Your task to perform on an android device: check google app version Image 0: 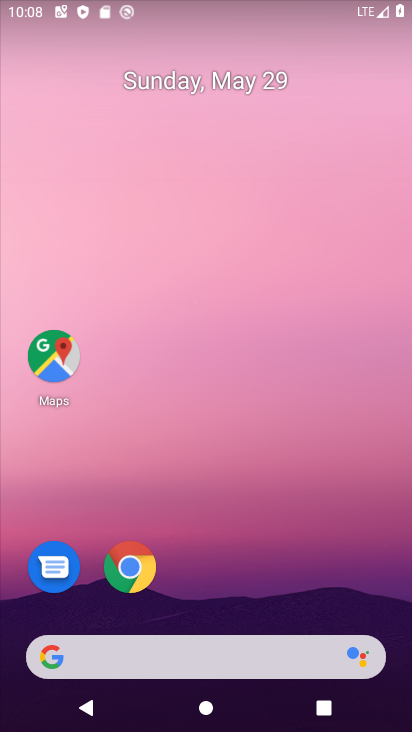
Step 0: click (134, 565)
Your task to perform on an android device: check google app version Image 1: 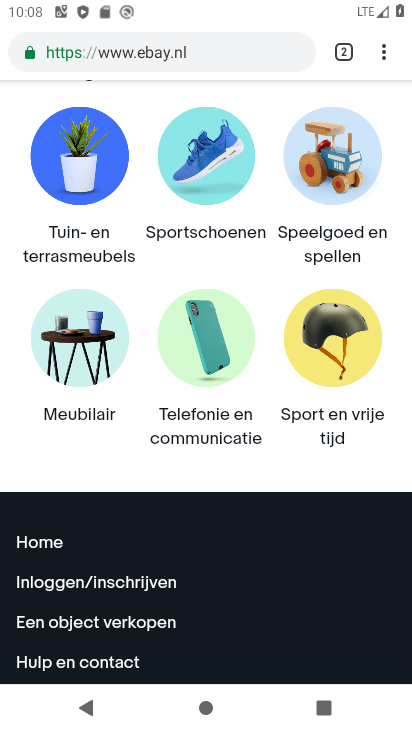
Step 1: click (385, 53)
Your task to perform on an android device: check google app version Image 2: 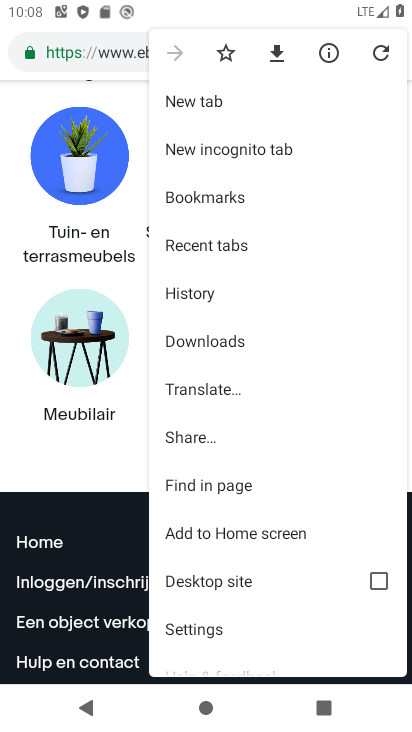
Step 2: click (198, 627)
Your task to perform on an android device: check google app version Image 3: 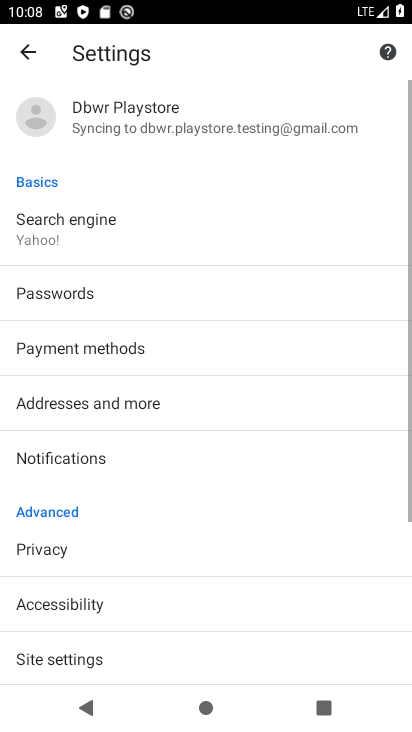
Step 3: drag from (236, 634) to (207, 114)
Your task to perform on an android device: check google app version Image 4: 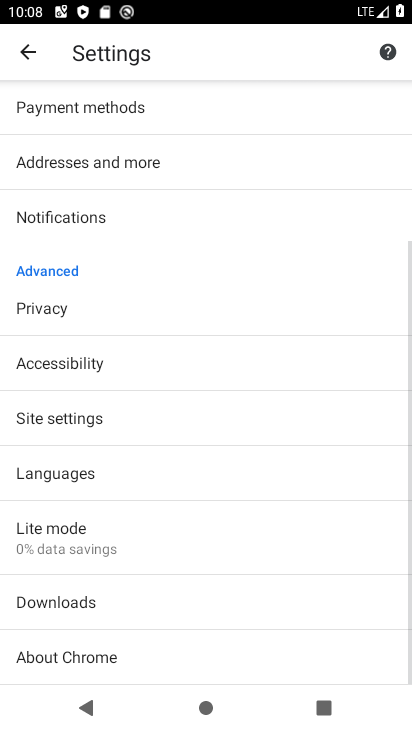
Step 4: click (74, 656)
Your task to perform on an android device: check google app version Image 5: 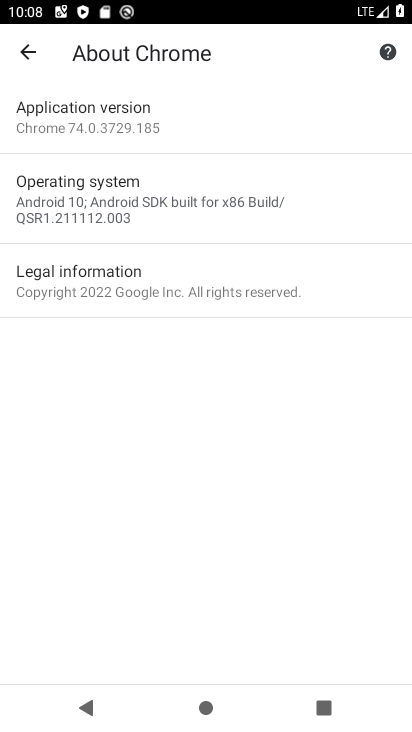
Step 5: click (81, 105)
Your task to perform on an android device: check google app version Image 6: 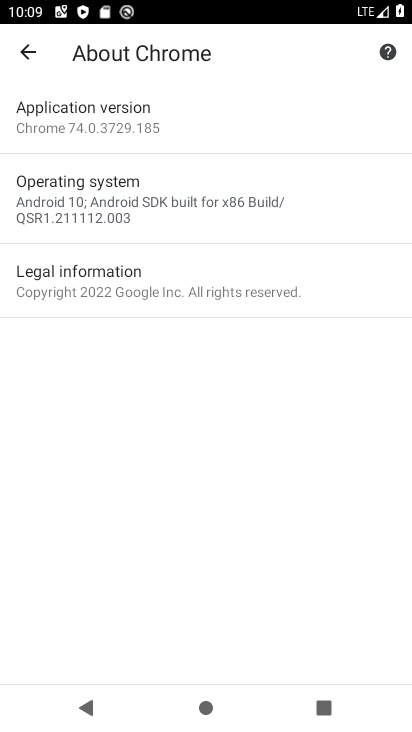
Step 6: task complete